Your task to perform on an android device: turn on notifications settings in the gmail app Image 0: 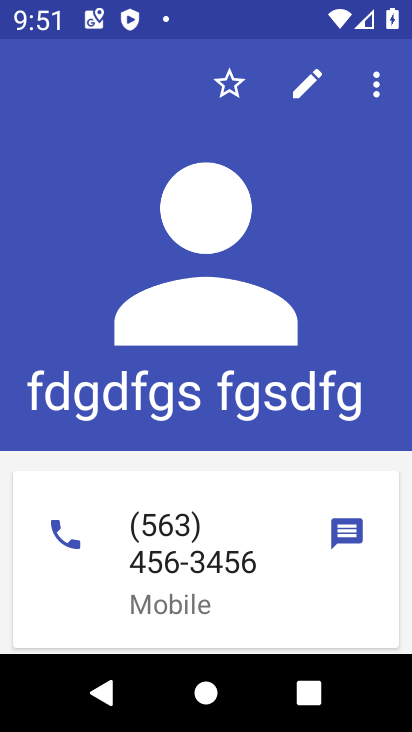
Step 0: press home button
Your task to perform on an android device: turn on notifications settings in the gmail app Image 1: 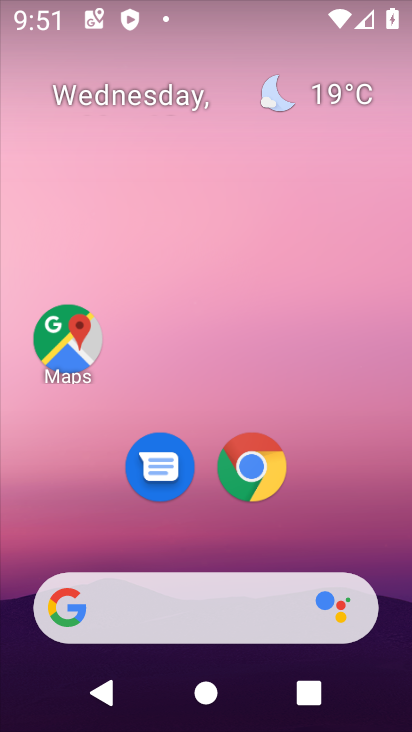
Step 1: drag from (305, 454) to (233, 45)
Your task to perform on an android device: turn on notifications settings in the gmail app Image 2: 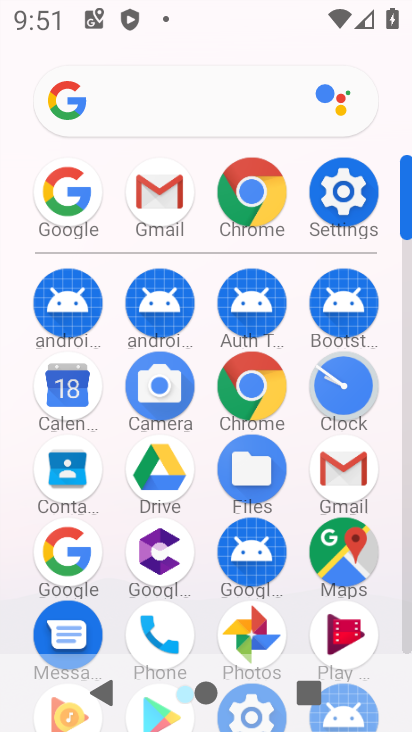
Step 2: click (153, 179)
Your task to perform on an android device: turn on notifications settings in the gmail app Image 3: 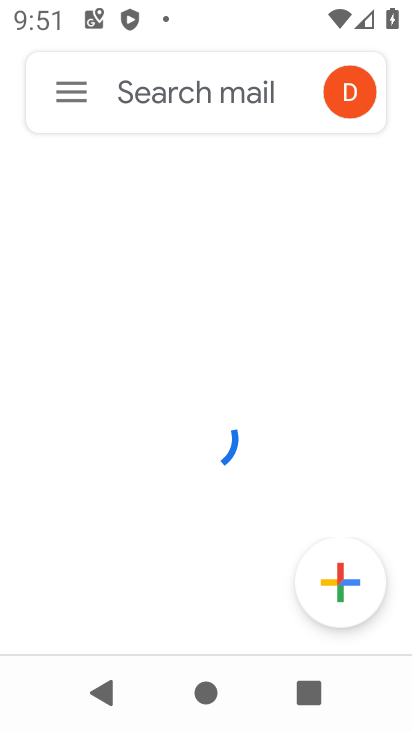
Step 3: click (69, 90)
Your task to perform on an android device: turn on notifications settings in the gmail app Image 4: 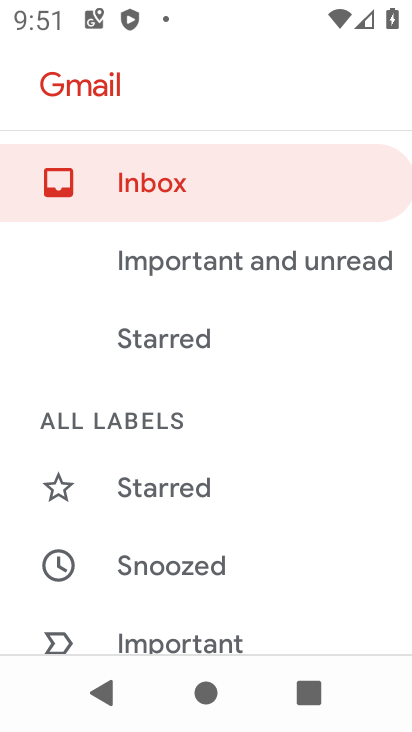
Step 4: drag from (216, 537) to (217, 87)
Your task to perform on an android device: turn on notifications settings in the gmail app Image 5: 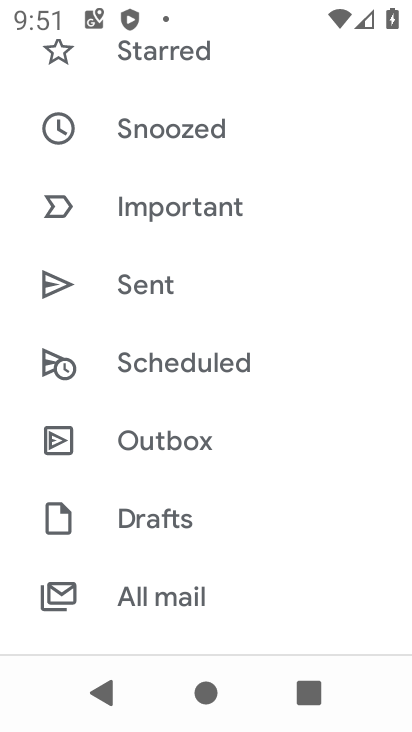
Step 5: drag from (213, 579) to (226, 90)
Your task to perform on an android device: turn on notifications settings in the gmail app Image 6: 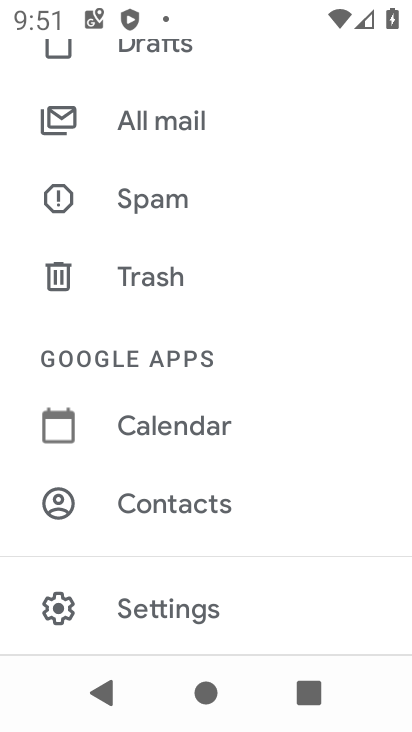
Step 6: click (213, 615)
Your task to perform on an android device: turn on notifications settings in the gmail app Image 7: 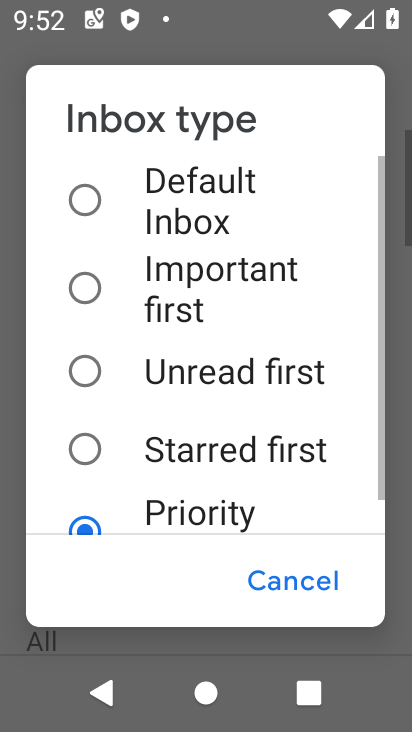
Step 7: click (285, 582)
Your task to perform on an android device: turn on notifications settings in the gmail app Image 8: 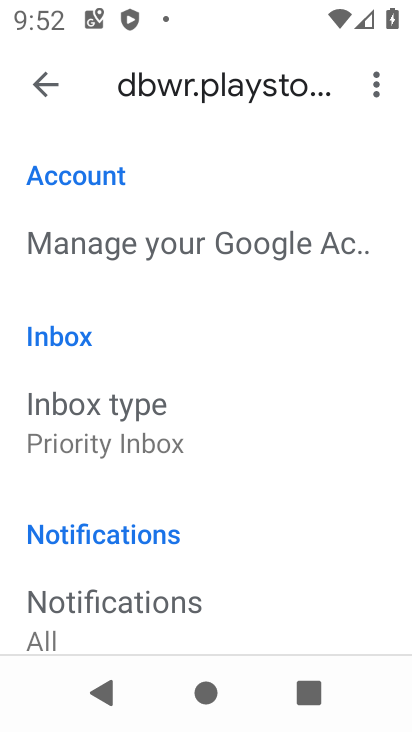
Step 8: click (160, 605)
Your task to perform on an android device: turn on notifications settings in the gmail app Image 9: 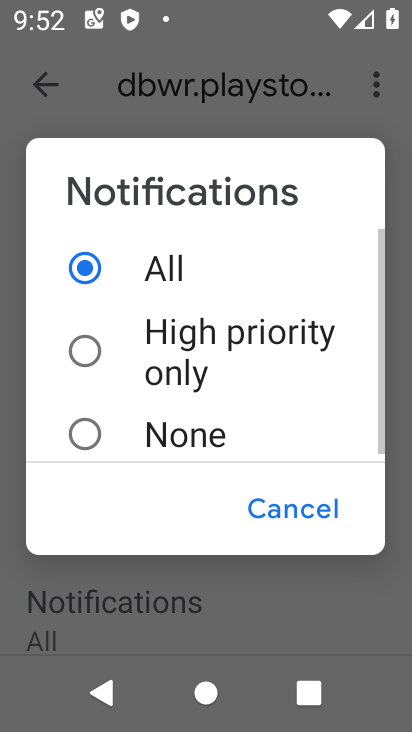
Step 9: task complete